Your task to perform on an android device: change notifications settings Image 0: 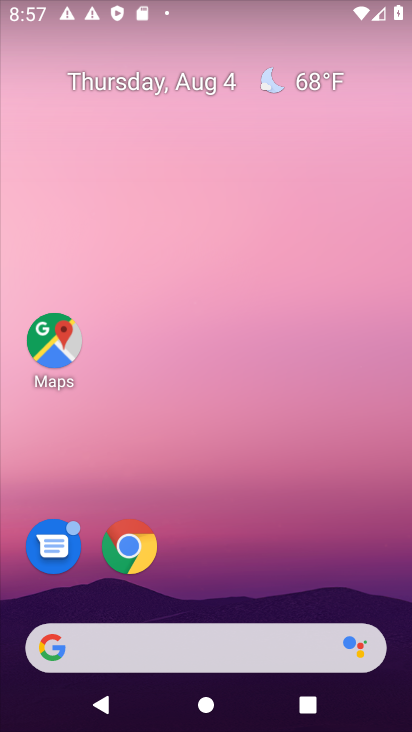
Step 0: press home button
Your task to perform on an android device: change notifications settings Image 1: 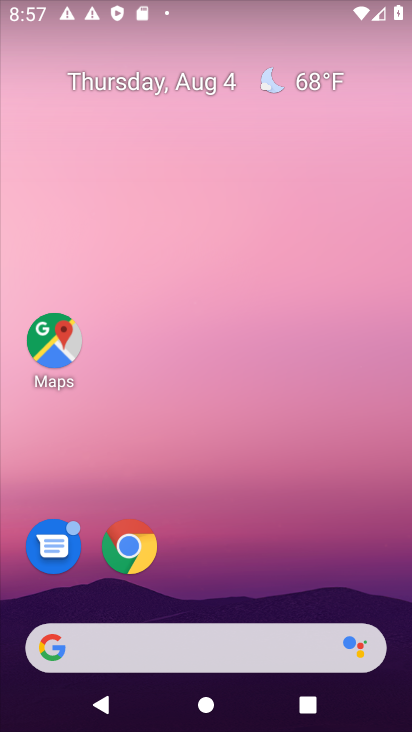
Step 1: drag from (264, 606) to (313, 89)
Your task to perform on an android device: change notifications settings Image 2: 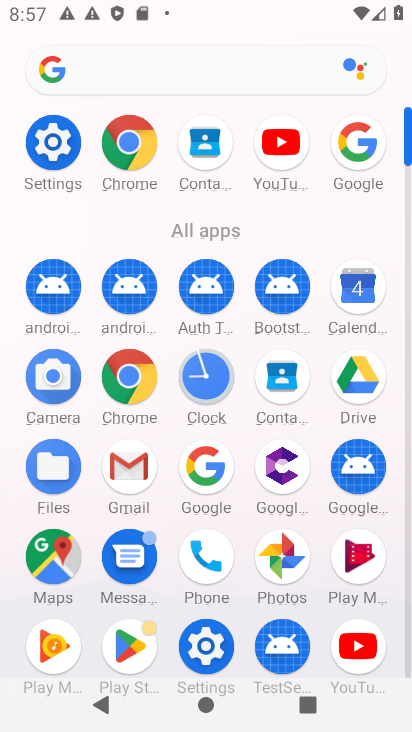
Step 2: click (47, 145)
Your task to perform on an android device: change notifications settings Image 3: 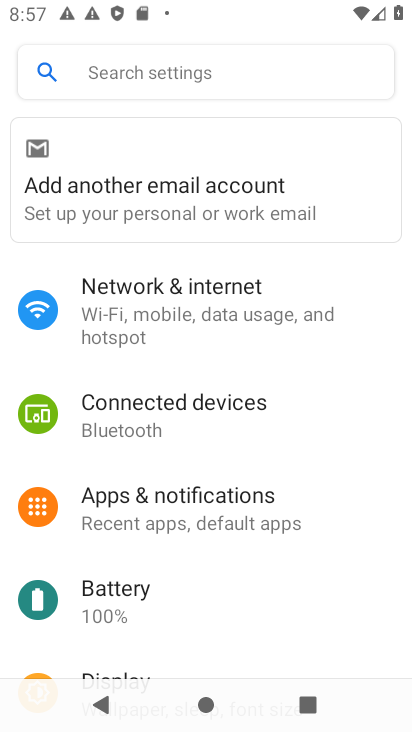
Step 3: click (175, 509)
Your task to perform on an android device: change notifications settings Image 4: 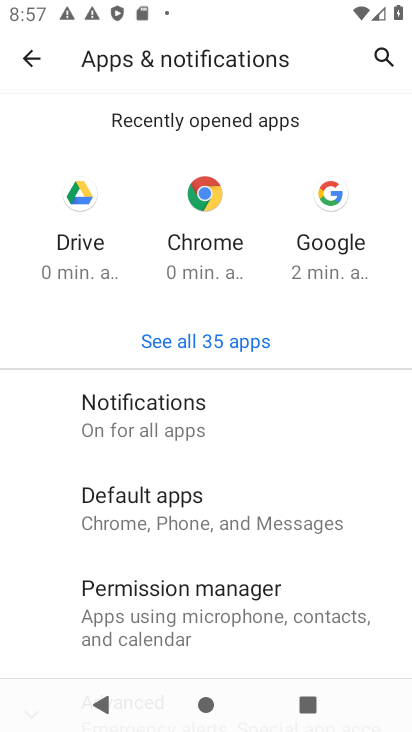
Step 4: click (126, 416)
Your task to perform on an android device: change notifications settings Image 5: 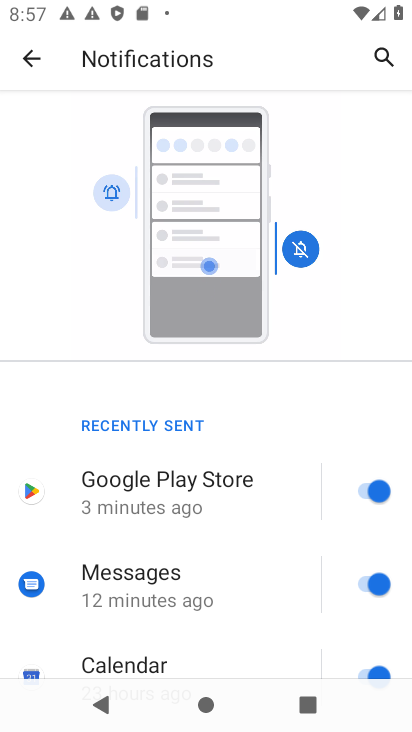
Step 5: drag from (321, 577) to (290, 91)
Your task to perform on an android device: change notifications settings Image 6: 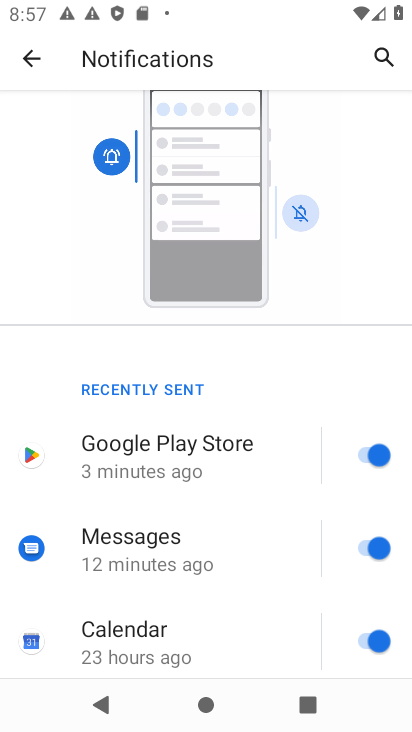
Step 6: drag from (224, 563) to (249, 74)
Your task to perform on an android device: change notifications settings Image 7: 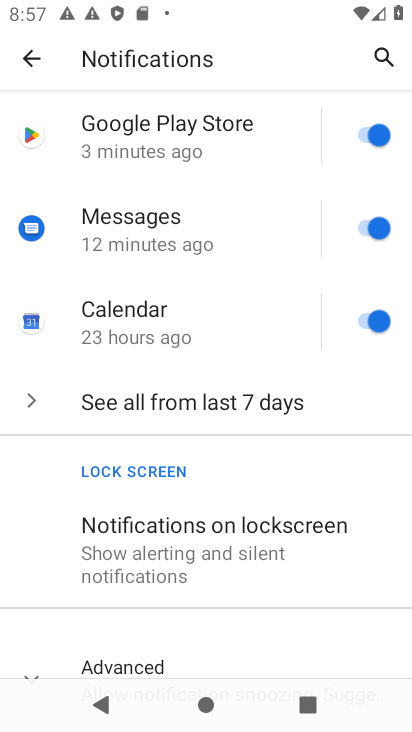
Step 7: drag from (264, 478) to (310, 200)
Your task to perform on an android device: change notifications settings Image 8: 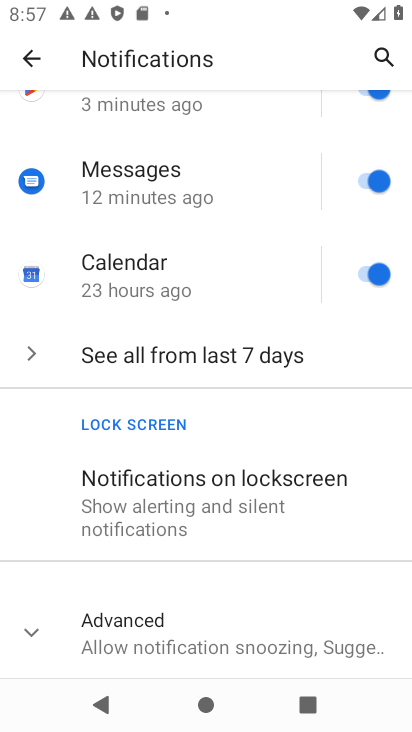
Step 8: click (157, 645)
Your task to perform on an android device: change notifications settings Image 9: 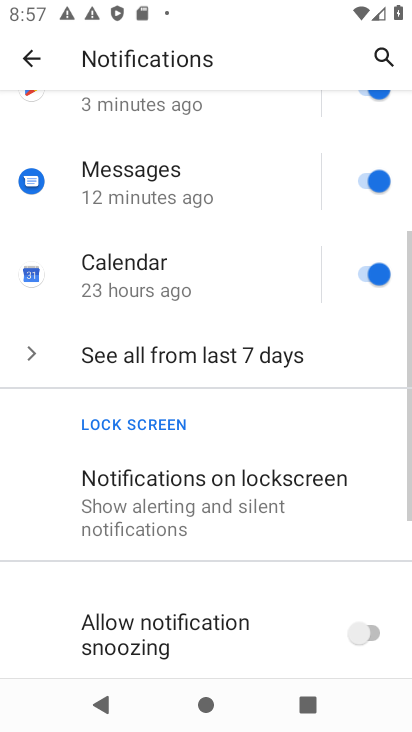
Step 9: drag from (250, 585) to (305, 243)
Your task to perform on an android device: change notifications settings Image 10: 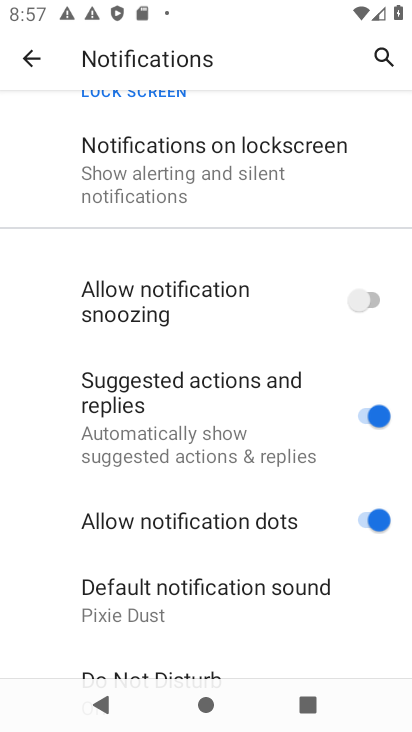
Step 10: click (378, 519)
Your task to perform on an android device: change notifications settings Image 11: 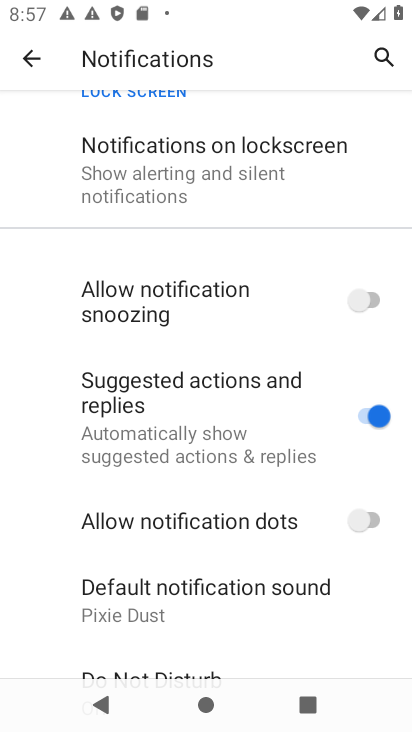
Step 11: task complete